Your task to perform on an android device: turn off notifications settings in the gmail app Image 0: 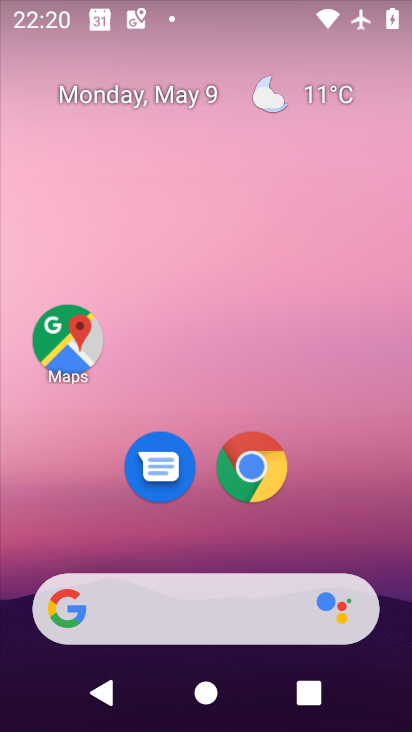
Step 0: drag from (310, 512) to (316, 209)
Your task to perform on an android device: turn off notifications settings in the gmail app Image 1: 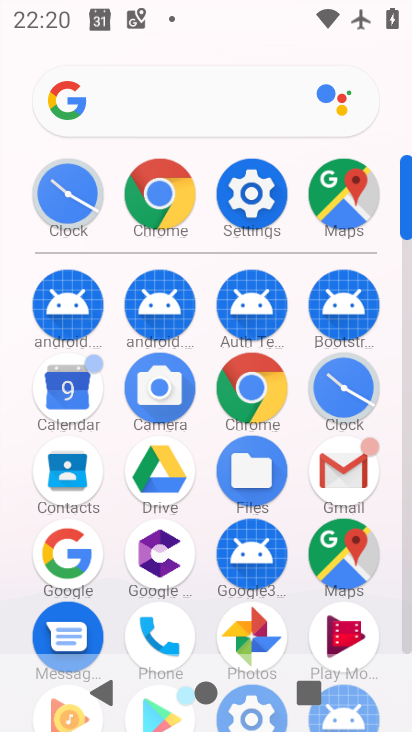
Step 1: click (336, 454)
Your task to perform on an android device: turn off notifications settings in the gmail app Image 2: 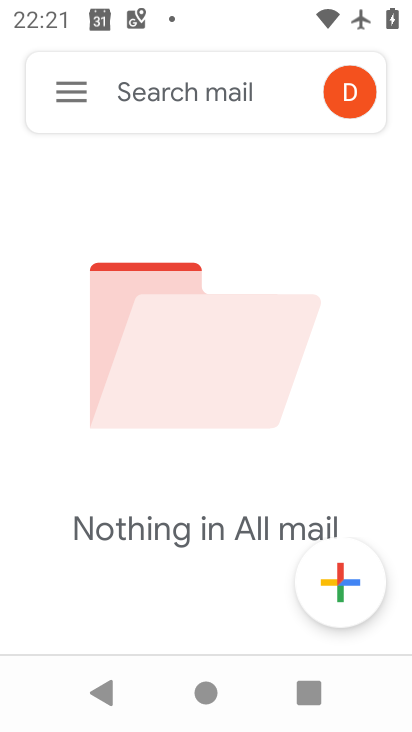
Step 2: click (76, 91)
Your task to perform on an android device: turn off notifications settings in the gmail app Image 3: 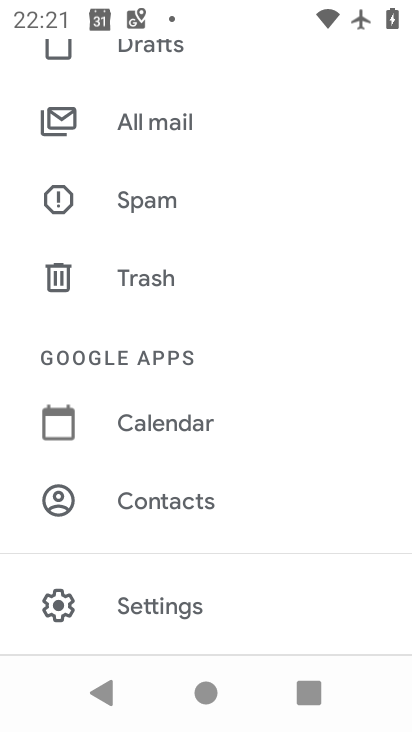
Step 3: click (178, 604)
Your task to perform on an android device: turn off notifications settings in the gmail app Image 4: 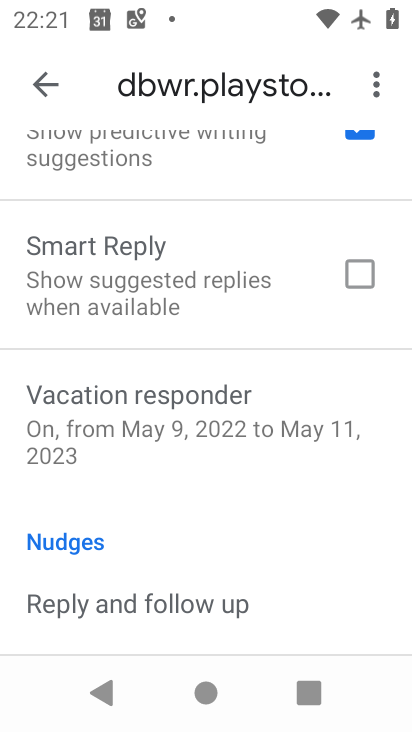
Step 4: drag from (211, 264) to (203, 709)
Your task to perform on an android device: turn off notifications settings in the gmail app Image 5: 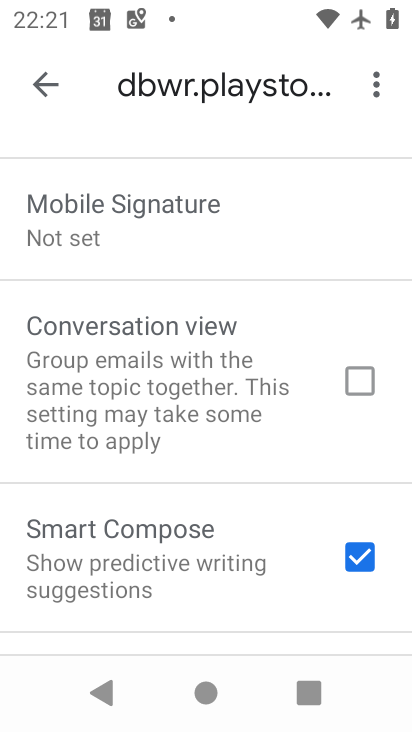
Step 5: drag from (188, 210) to (194, 655)
Your task to perform on an android device: turn off notifications settings in the gmail app Image 6: 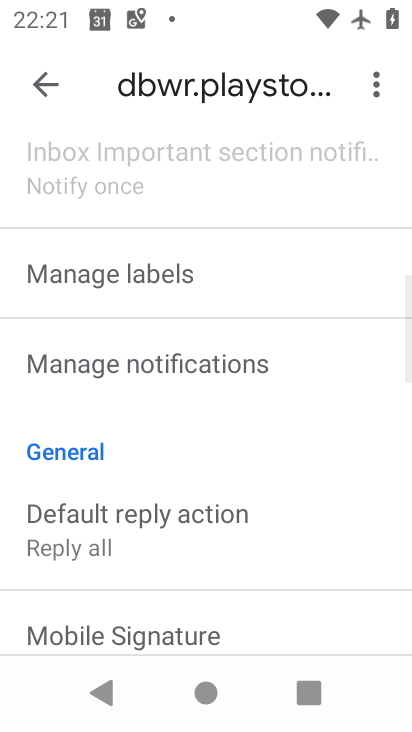
Step 6: drag from (178, 216) to (191, 600)
Your task to perform on an android device: turn off notifications settings in the gmail app Image 7: 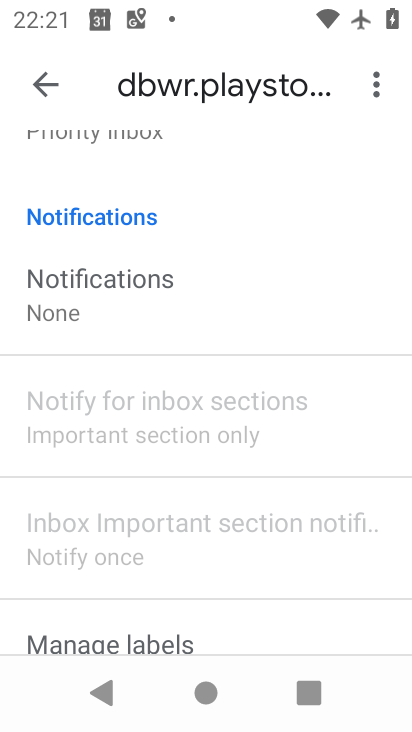
Step 7: click (109, 319)
Your task to perform on an android device: turn off notifications settings in the gmail app Image 8: 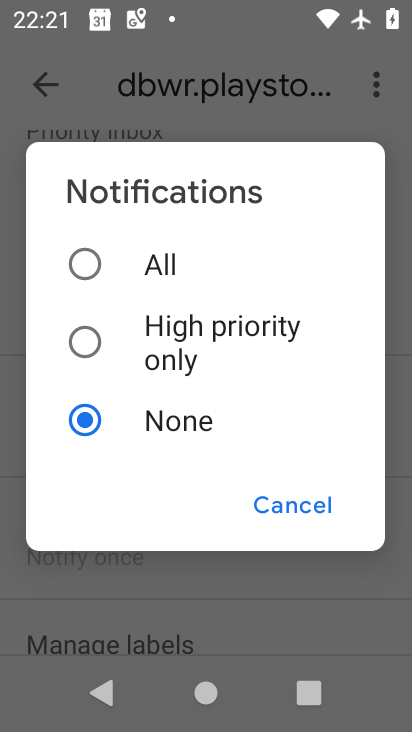
Step 8: task complete